Your task to perform on an android device: Open Youtube and go to the subscriptions tab Image 0: 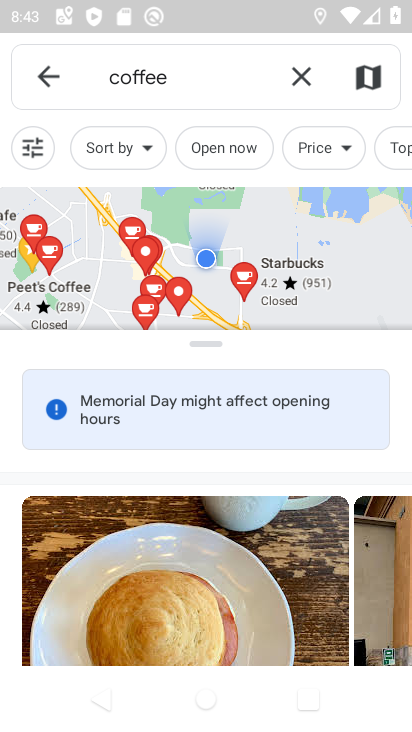
Step 0: drag from (212, 495) to (223, 362)
Your task to perform on an android device: Open Youtube and go to the subscriptions tab Image 1: 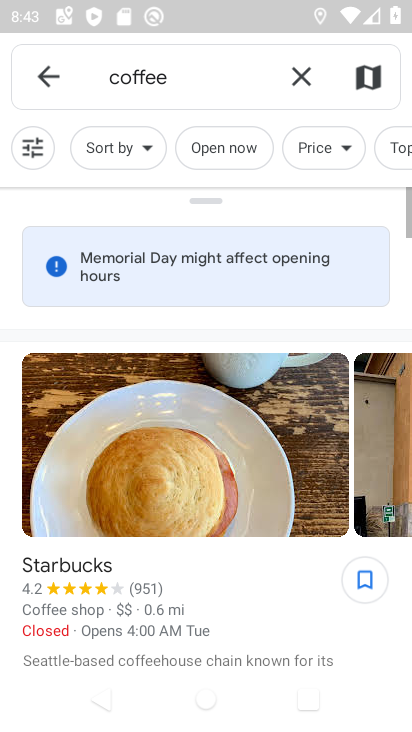
Step 1: press home button
Your task to perform on an android device: Open Youtube and go to the subscriptions tab Image 2: 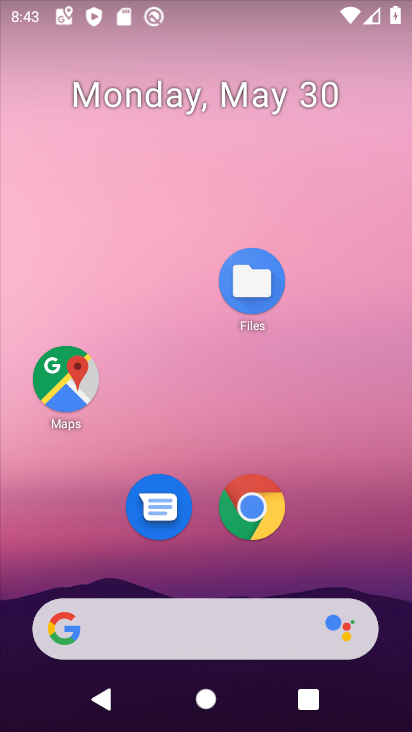
Step 2: drag from (212, 573) to (245, 118)
Your task to perform on an android device: Open Youtube and go to the subscriptions tab Image 3: 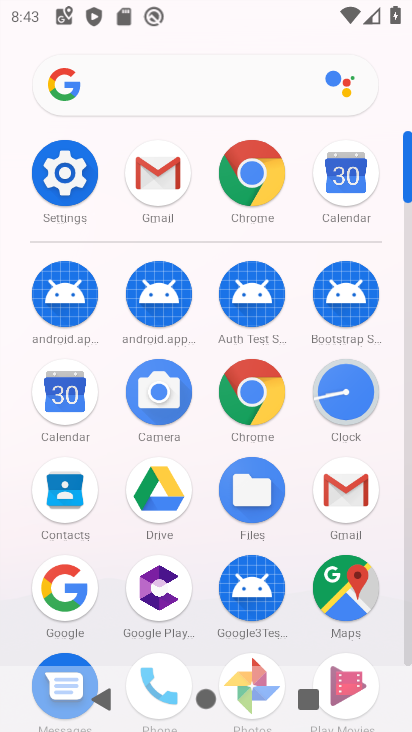
Step 3: drag from (208, 648) to (218, 262)
Your task to perform on an android device: Open Youtube and go to the subscriptions tab Image 4: 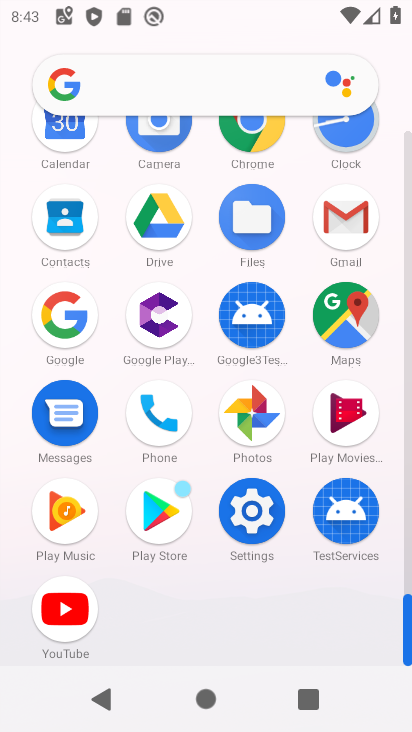
Step 4: click (62, 619)
Your task to perform on an android device: Open Youtube and go to the subscriptions tab Image 5: 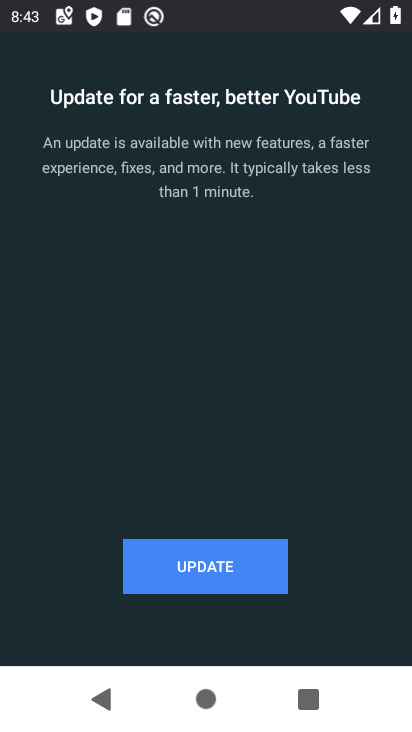
Step 5: click (206, 564)
Your task to perform on an android device: Open Youtube and go to the subscriptions tab Image 6: 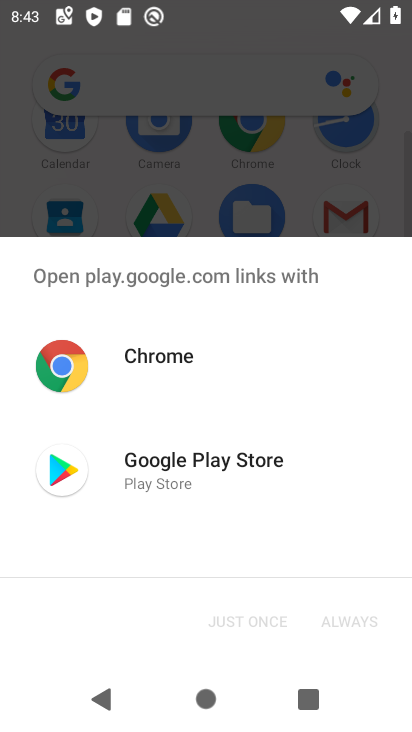
Step 6: click (154, 488)
Your task to perform on an android device: Open Youtube and go to the subscriptions tab Image 7: 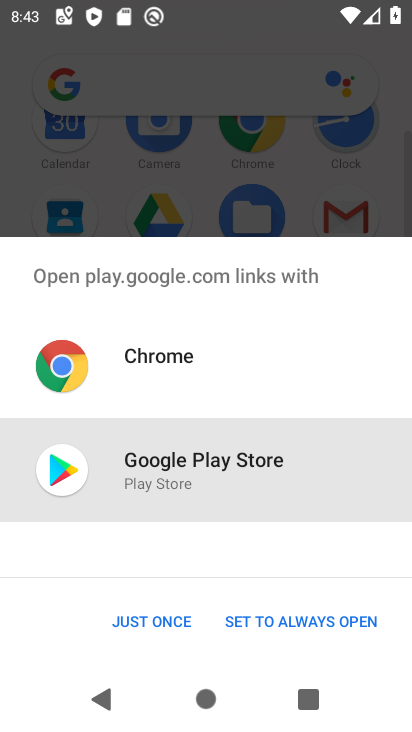
Step 7: click (160, 620)
Your task to perform on an android device: Open Youtube and go to the subscriptions tab Image 8: 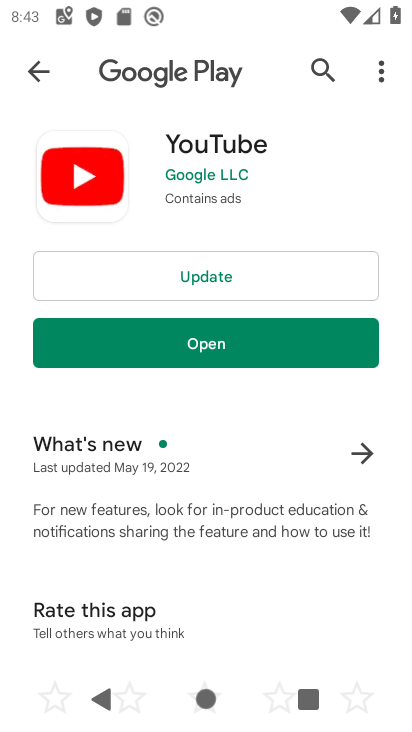
Step 8: click (232, 284)
Your task to perform on an android device: Open Youtube and go to the subscriptions tab Image 9: 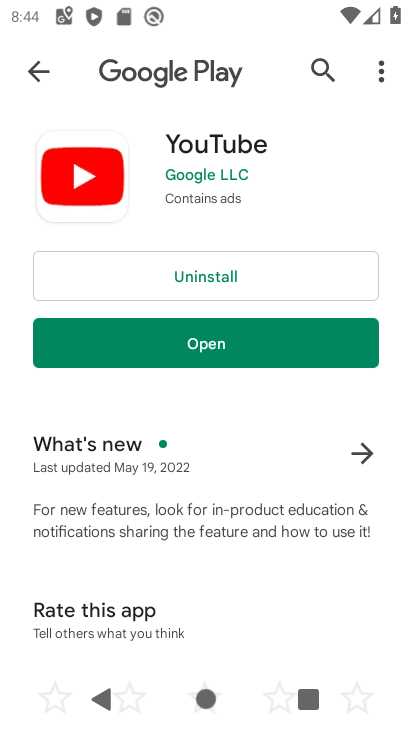
Step 9: click (240, 354)
Your task to perform on an android device: Open Youtube and go to the subscriptions tab Image 10: 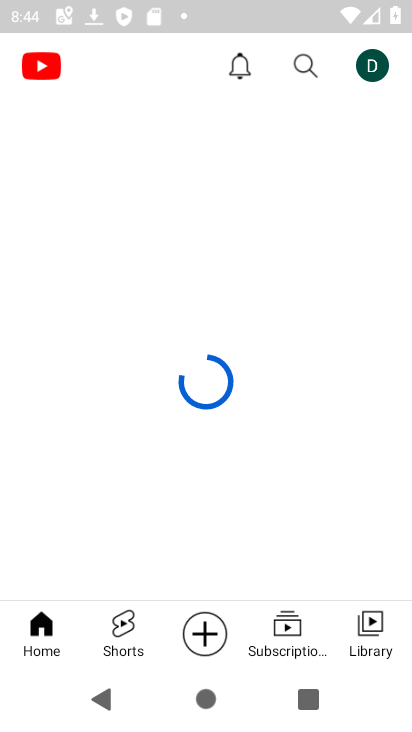
Step 10: click (288, 636)
Your task to perform on an android device: Open Youtube and go to the subscriptions tab Image 11: 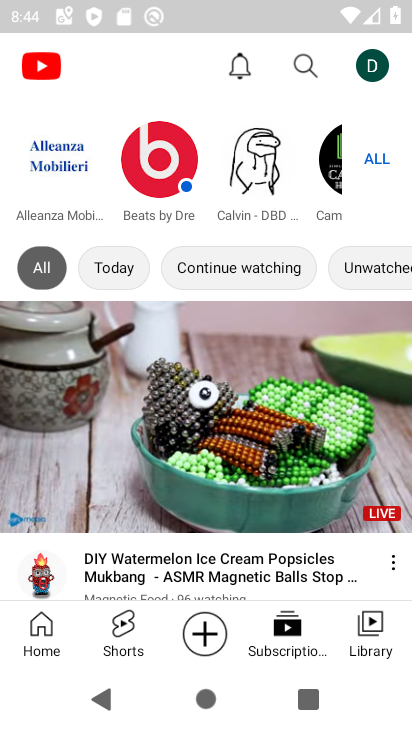
Step 11: task complete